Your task to perform on an android device: change the upload size in google photos Image 0: 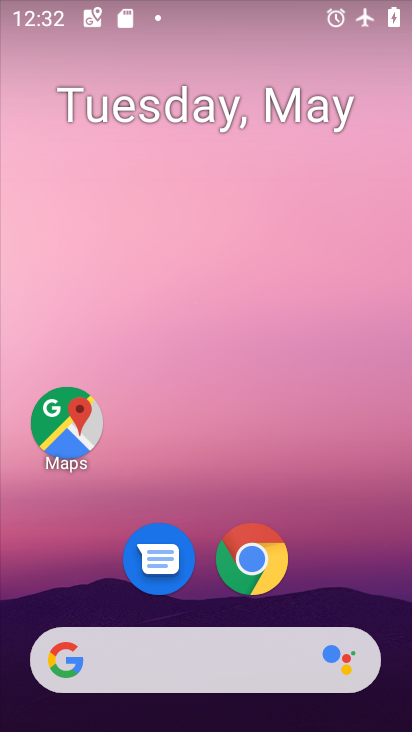
Step 0: drag from (373, 621) to (298, 25)
Your task to perform on an android device: change the upload size in google photos Image 1: 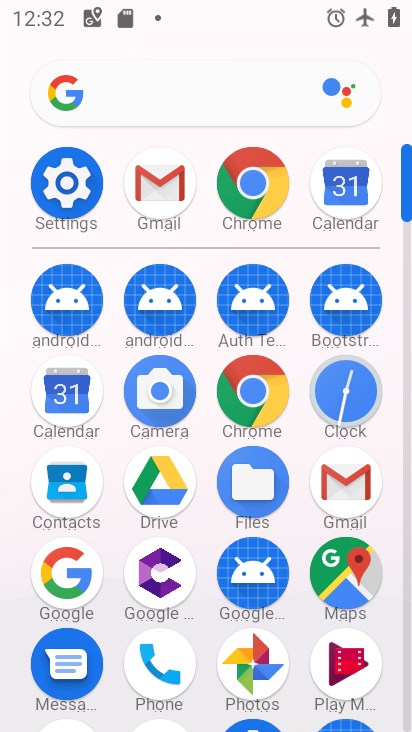
Step 1: click (256, 648)
Your task to perform on an android device: change the upload size in google photos Image 2: 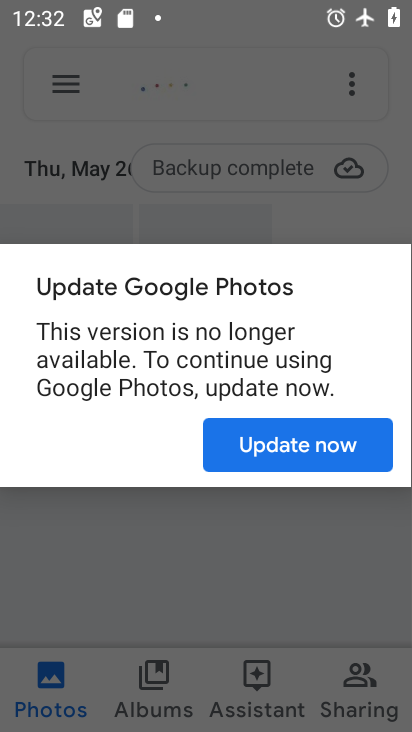
Step 2: click (338, 451)
Your task to perform on an android device: change the upload size in google photos Image 3: 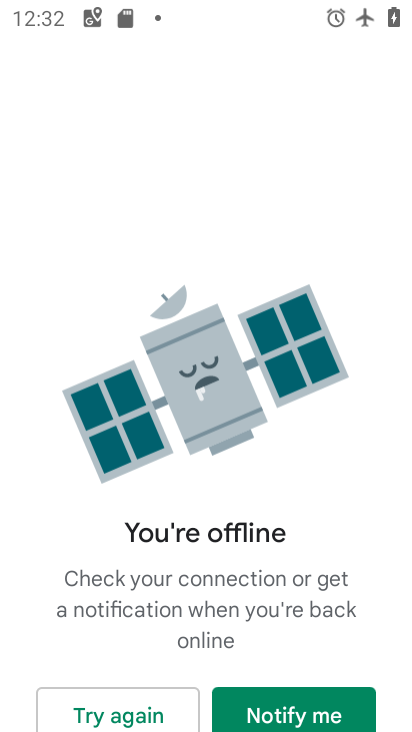
Step 3: task complete